Your task to perform on an android device: Google the capital of Canada Image 0: 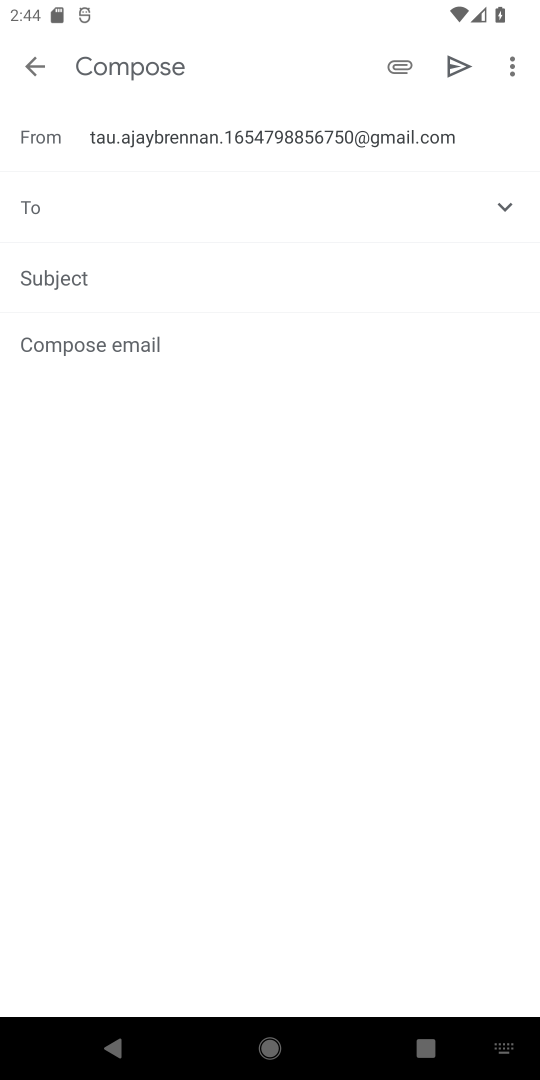
Step 0: press home button
Your task to perform on an android device: Google the capital of Canada Image 1: 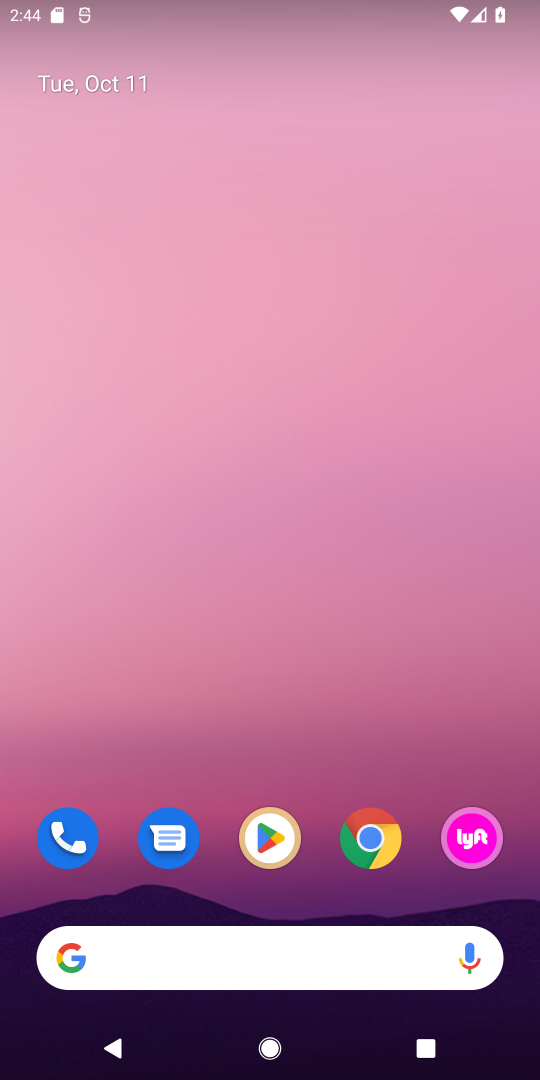
Step 1: click (360, 837)
Your task to perform on an android device: Google the capital of Canada Image 2: 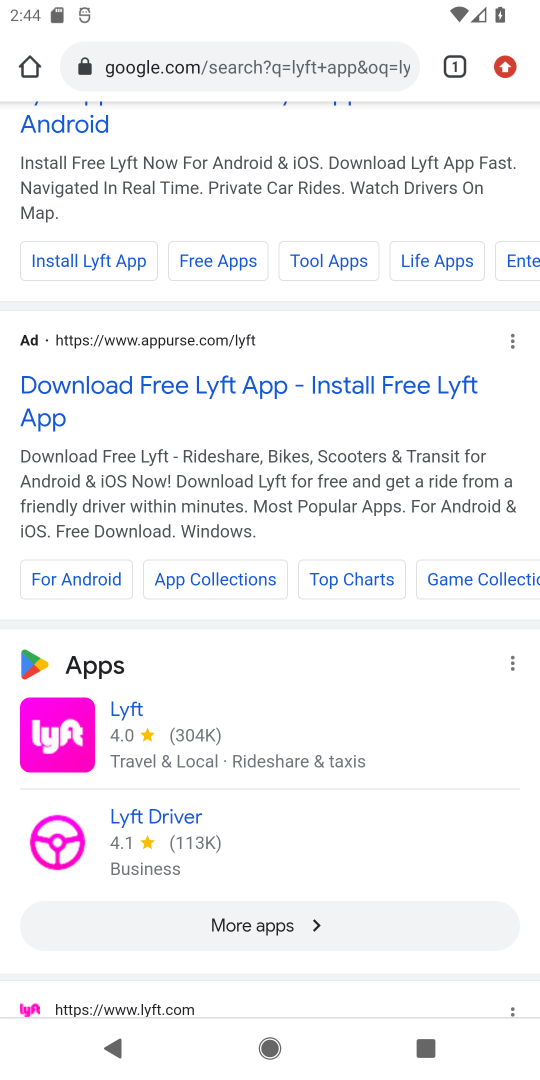
Step 2: click (199, 69)
Your task to perform on an android device: Google the capital of Canada Image 3: 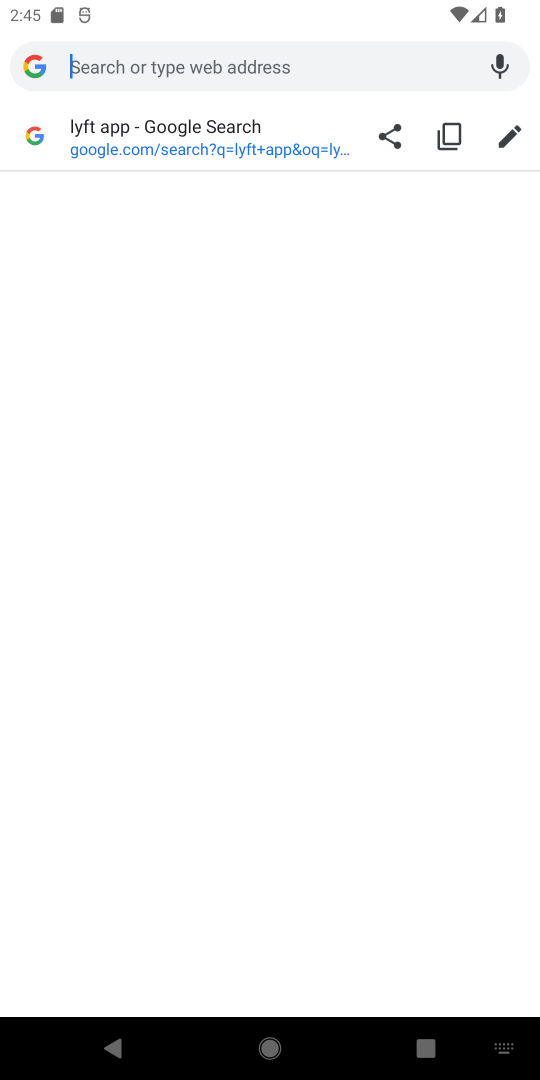
Step 3: type "capital of canada"
Your task to perform on an android device: Google the capital of Canada Image 4: 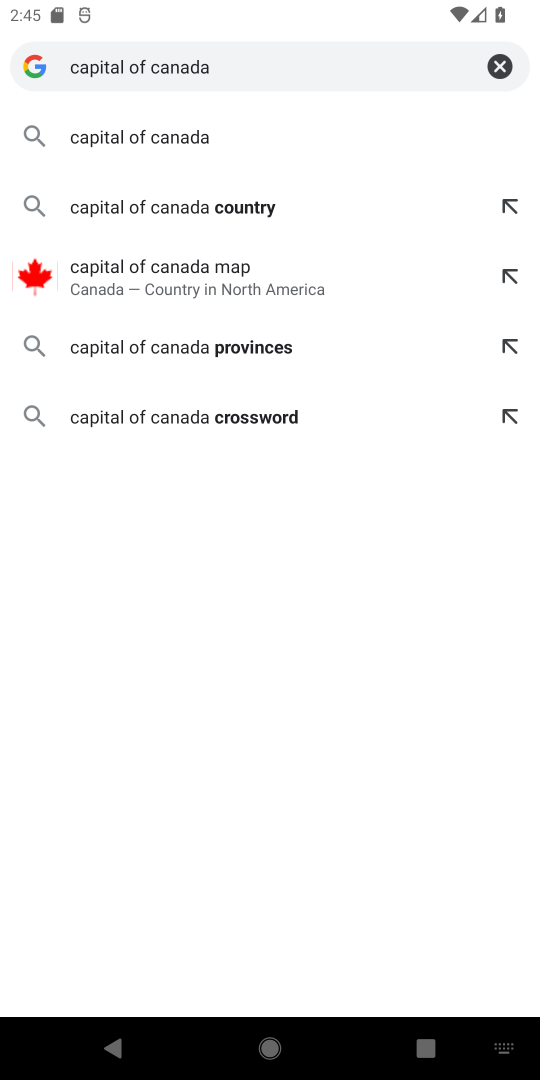
Step 4: click (177, 129)
Your task to perform on an android device: Google the capital of Canada Image 5: 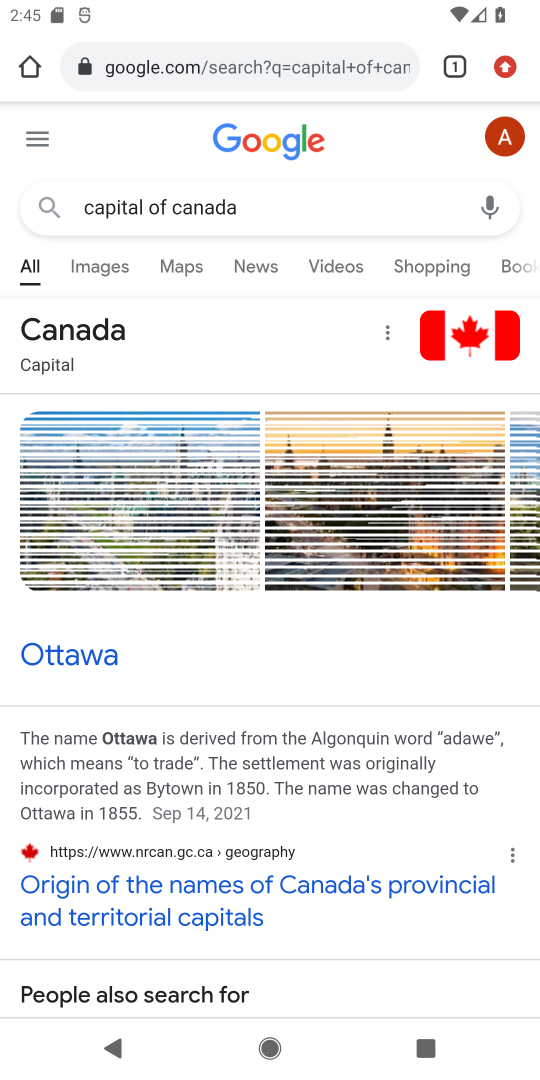
Step 5: drag from (250, 741) to (287, 510)
Your task to perform on an android device: Google the capital of Canada Image 6: 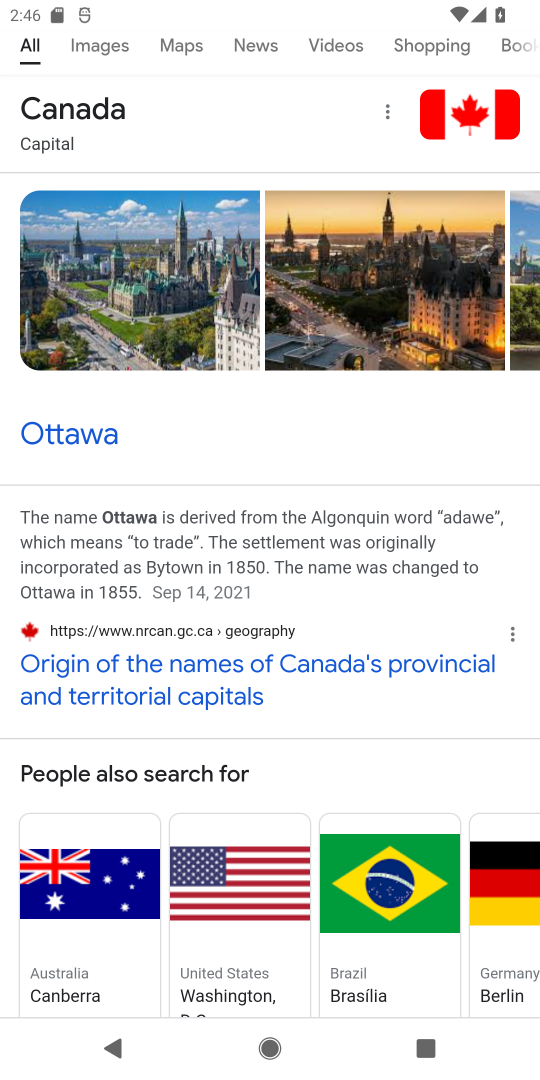
Step 6: drag from (353, 699) to (434, 127)
Your task to perform on an android device: Google the capital of Canada Image 7: 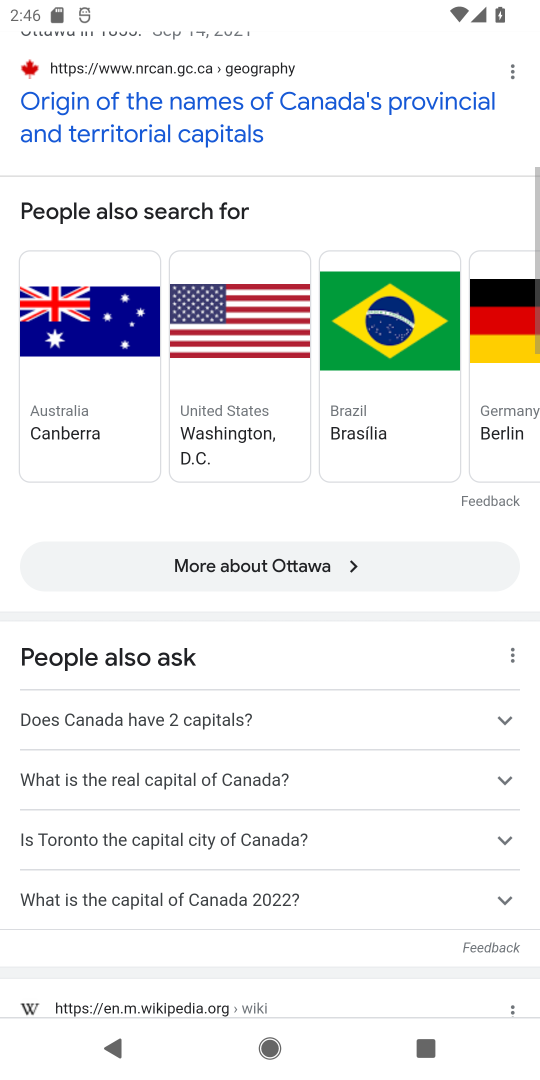
Step 7: drag from (399, 698) to (443, 315)
Your task to perform on an android device: Google the capital of Canada Image 8: 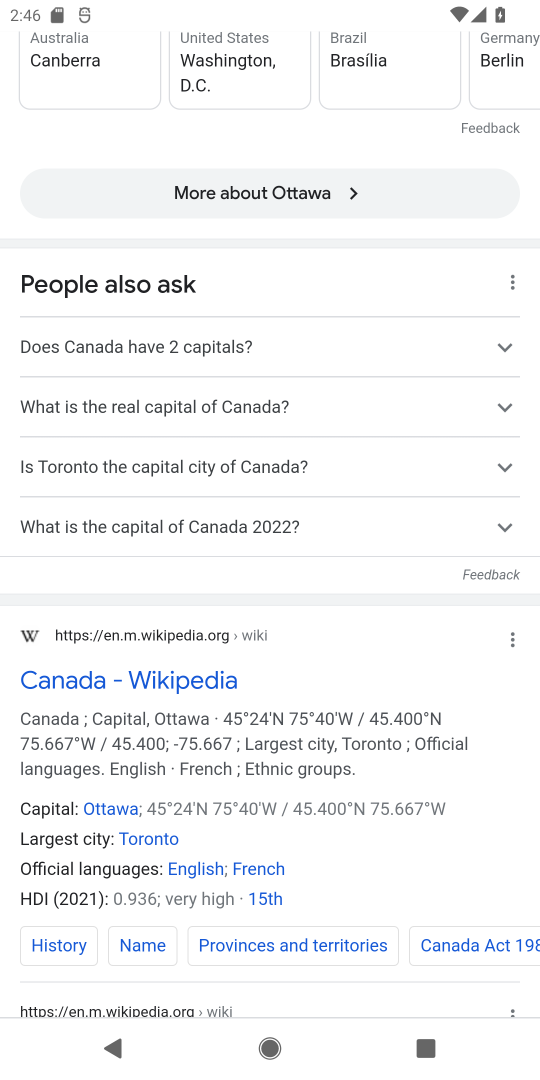
Step 8: drag from (351, 704) to (401, 298)
Your task to perform on an android device: Google the capital of Canada Image 9: 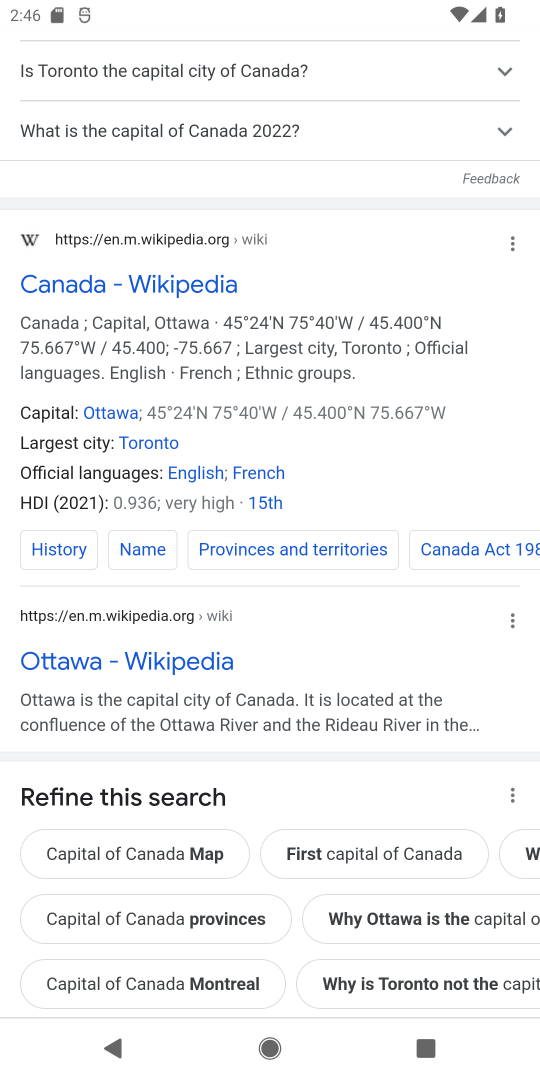
Step 9: drag from (366, 564) to (361, 248)
Your task to perform on an android device: Google the capital of Canada Image 10: 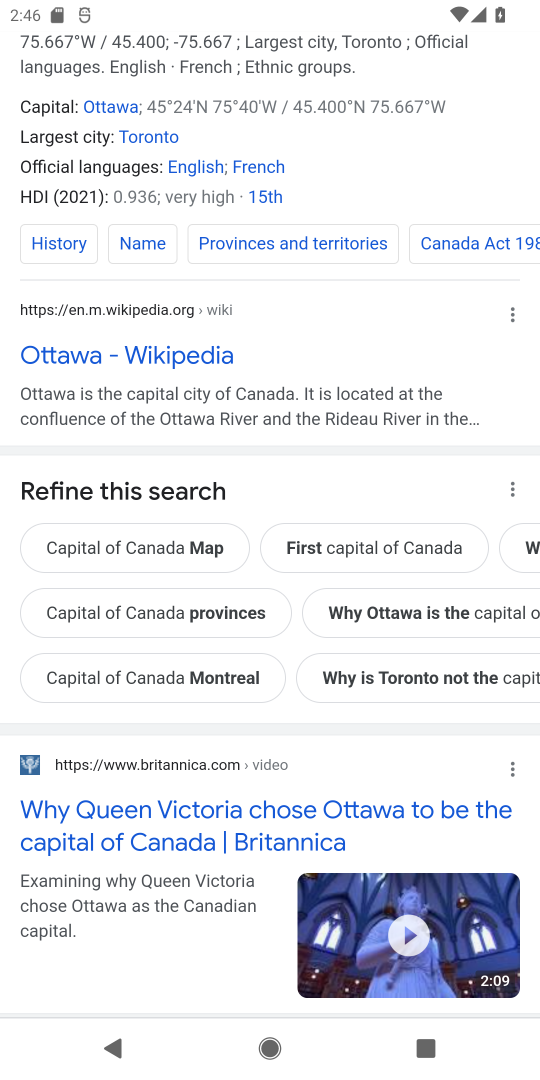
Step 10: drag from (231, 595) to (231, 291)
Your task to perform on an android device: Google the capital of Canada Image 11: 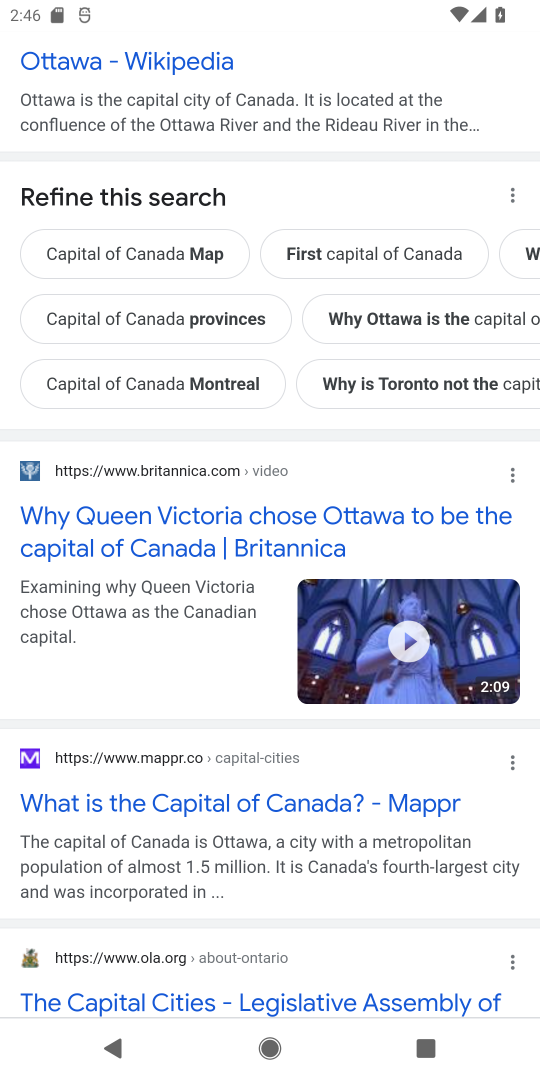
Step 11: click (110, 802)
Your task to perform on an android device: Google the capital of Canada Image 12: 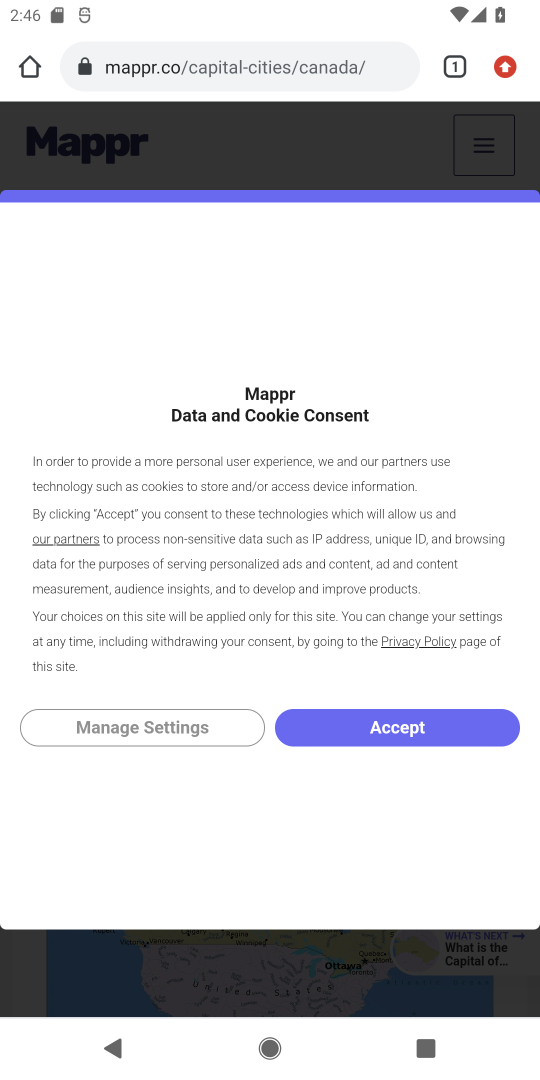
Step 12: click (363, 736)
Your task to perform on an android device: Google the capital of Canada Image 13: 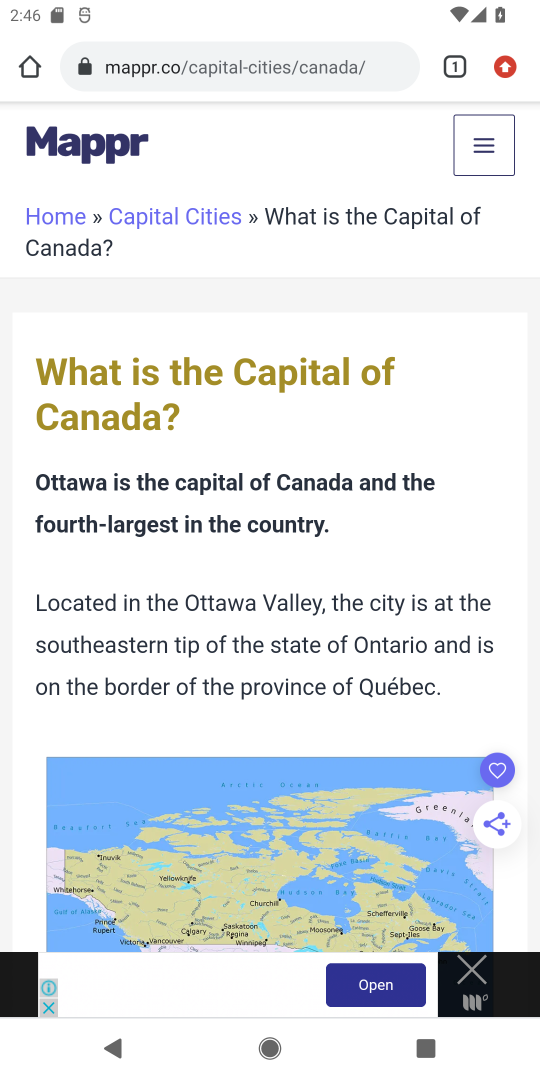
Step 13: drag from (291, 841) to (361, 429)
Your task to perform on an android device: Google the capital of Canada Image 14: 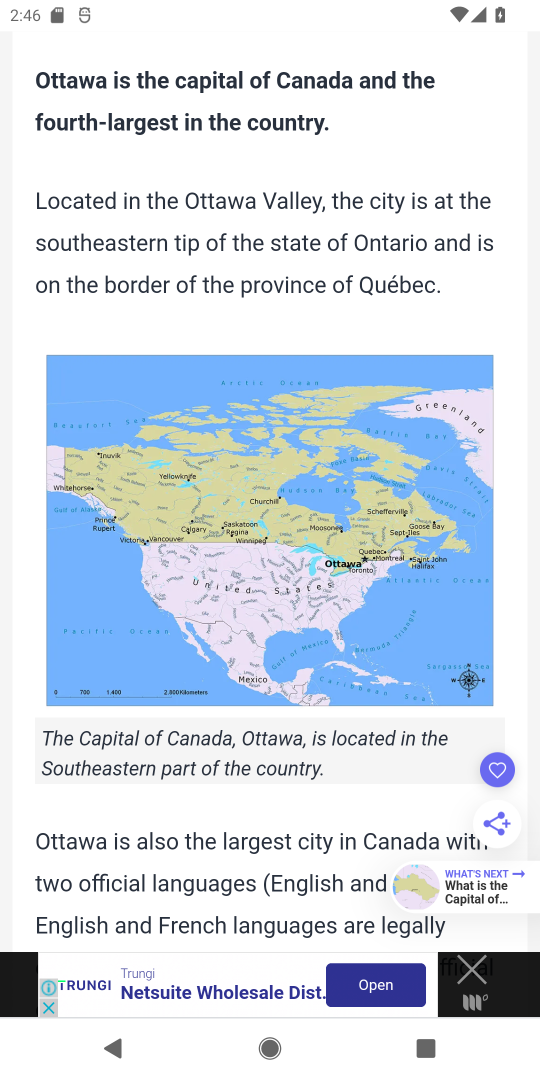
Step 14: click (474, 975)
Your task to perform on an android device: Google the capital of Canada Image 15: 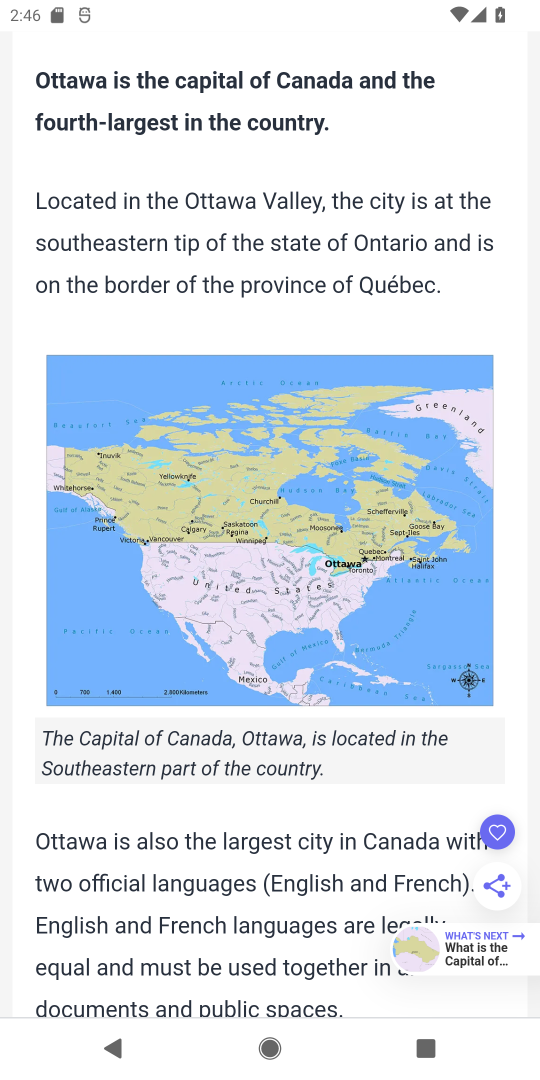
Step 15: task complete